Your task to perform on an android device: Open CNN.com Image 0: 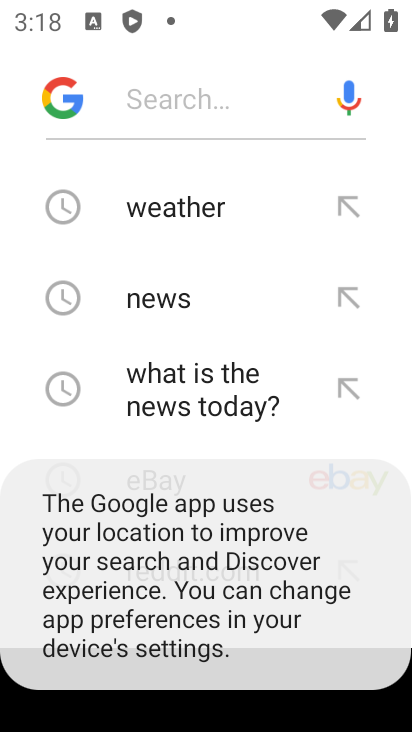
Step 0: press back button
Your task to perform on an android device: Open CNN.com Image 1: 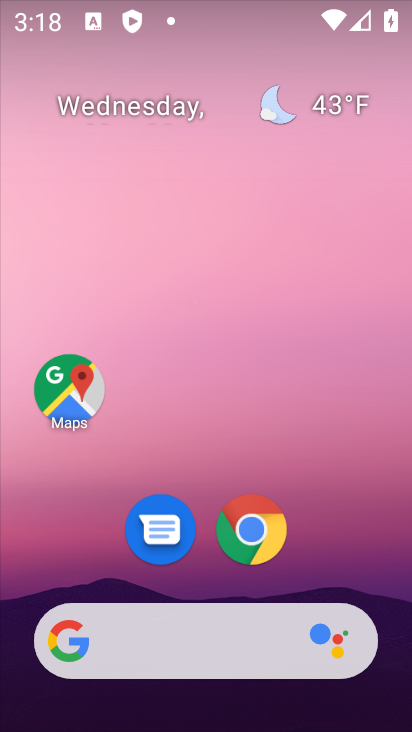
Step 1: click (284, 533)
Your task to perform on an android device: Open CNN.com Image 2: 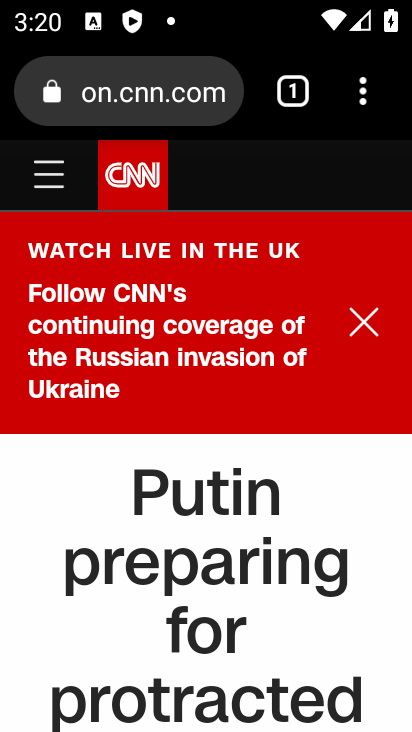
Step 2: task complete